Your task to perform on an android device: Check the news Image 0: 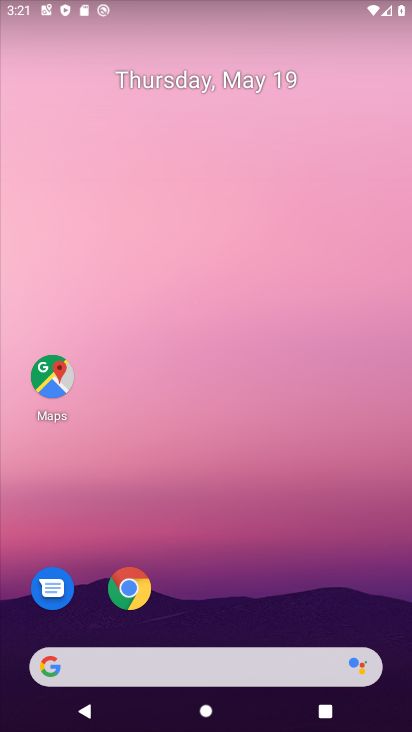
Step 0: drag from (192, 617) to (280, 63)
Your task to perform on an android device: Check the news Image 1: 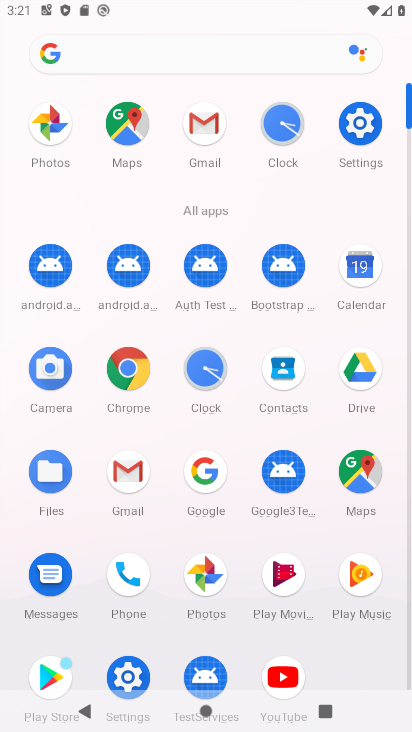
Step 1: click (126, 367)
Your task to perform on an android device: Check the news Image 2: 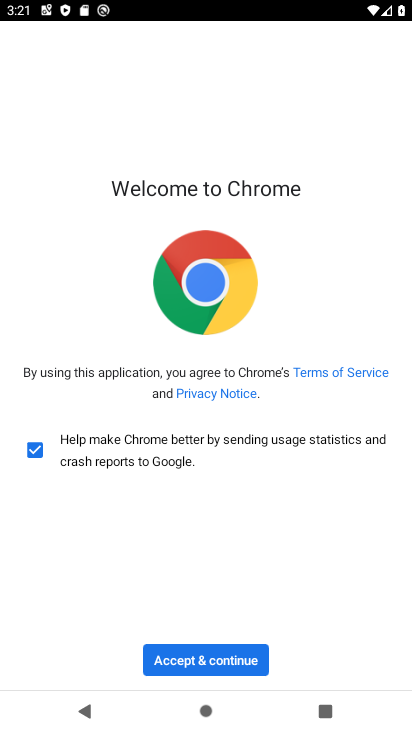
Step 2: click (187, 668)
Your task to perform on an android device: Check the news Image 3: 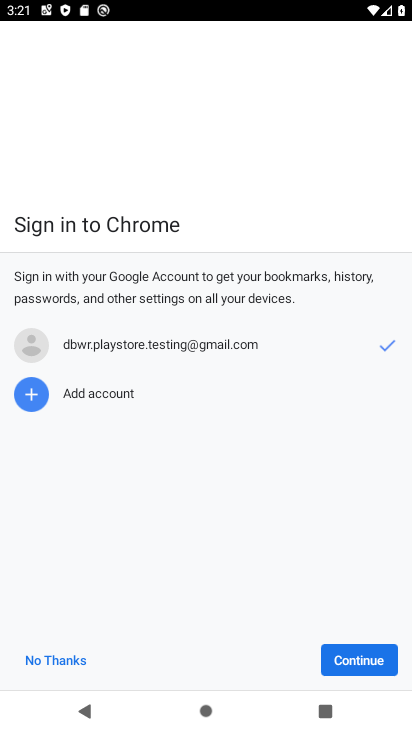
Step 3: click (359, 650)
Your task to perform on an android device: Check the news Image 4: 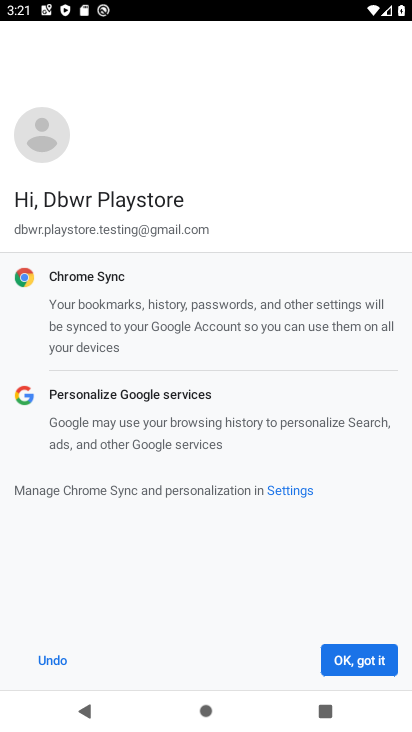
Step 4: click (359, 650)
Your task to perform on an android device: Check the news Image 5: 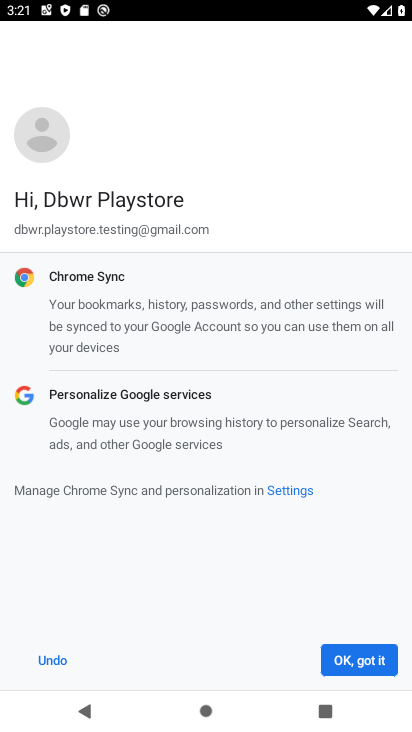
Step 5: click (359, 650)
Your task to perform on an android device: Check the news Image 6: 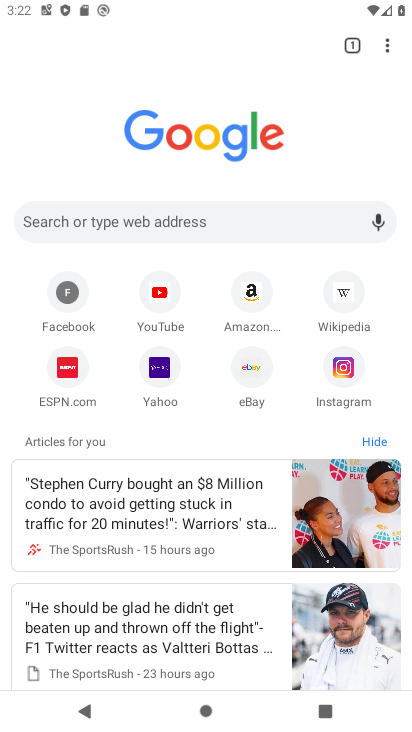
Step 6: task complete